Your task to perform on an android device: turn off airplane mode Image 0: 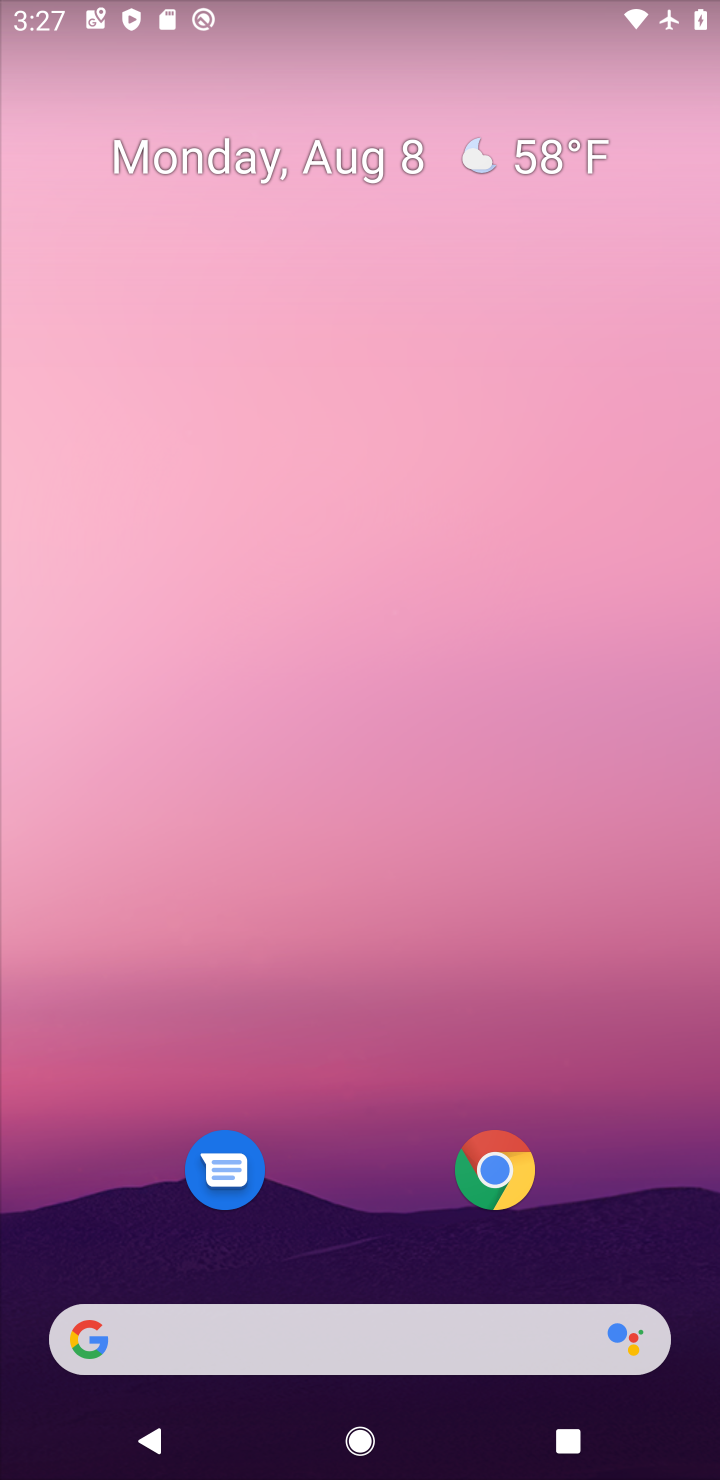
Step 0: drag from (407, 789) to (429, 615)
Your task to perform on an android device: turn off airplane mode Image 1: 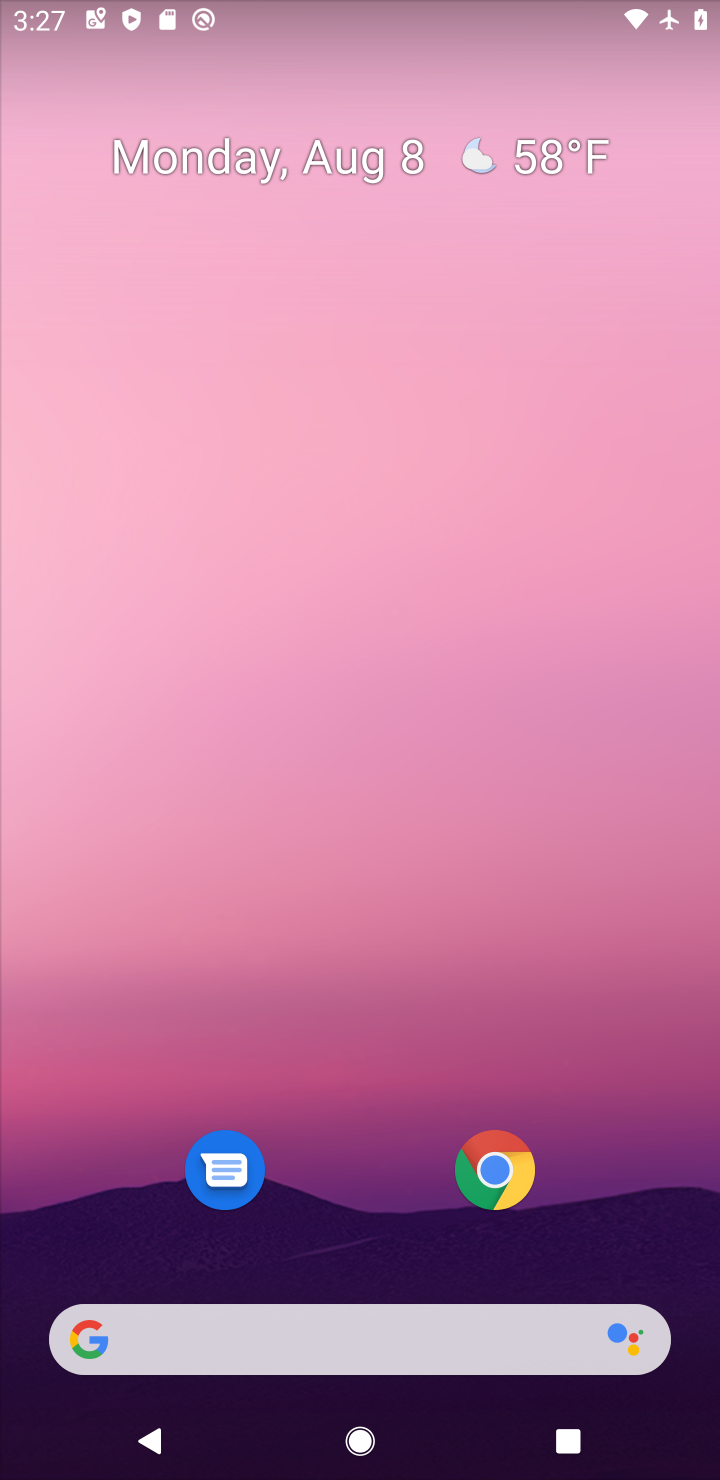
Step 1: drag from (318, 1155) to (407, 436)
Your task to perform on an android device: turn off airplane mode Image 2: 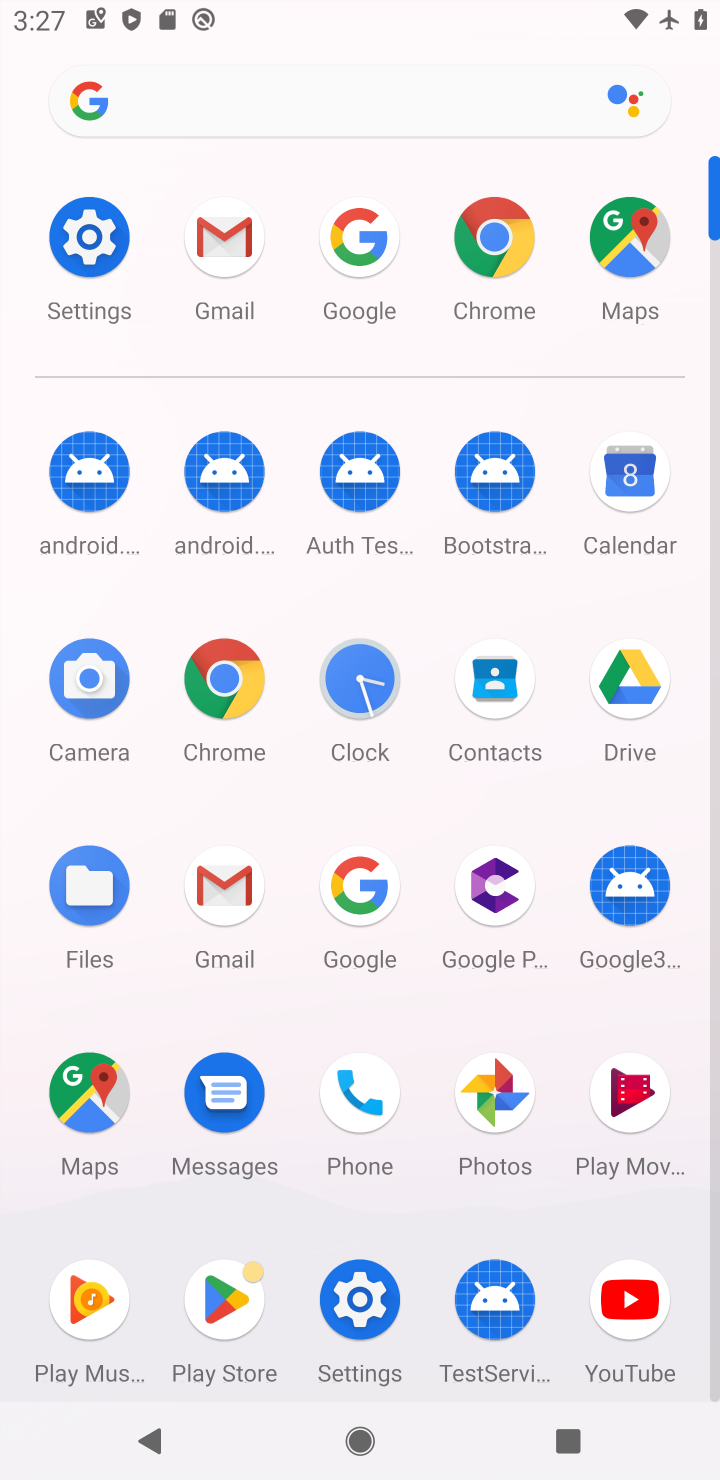
Step 2: click (102, 236)
Your task to perform on an android device: turn off airplane mode Image 3: 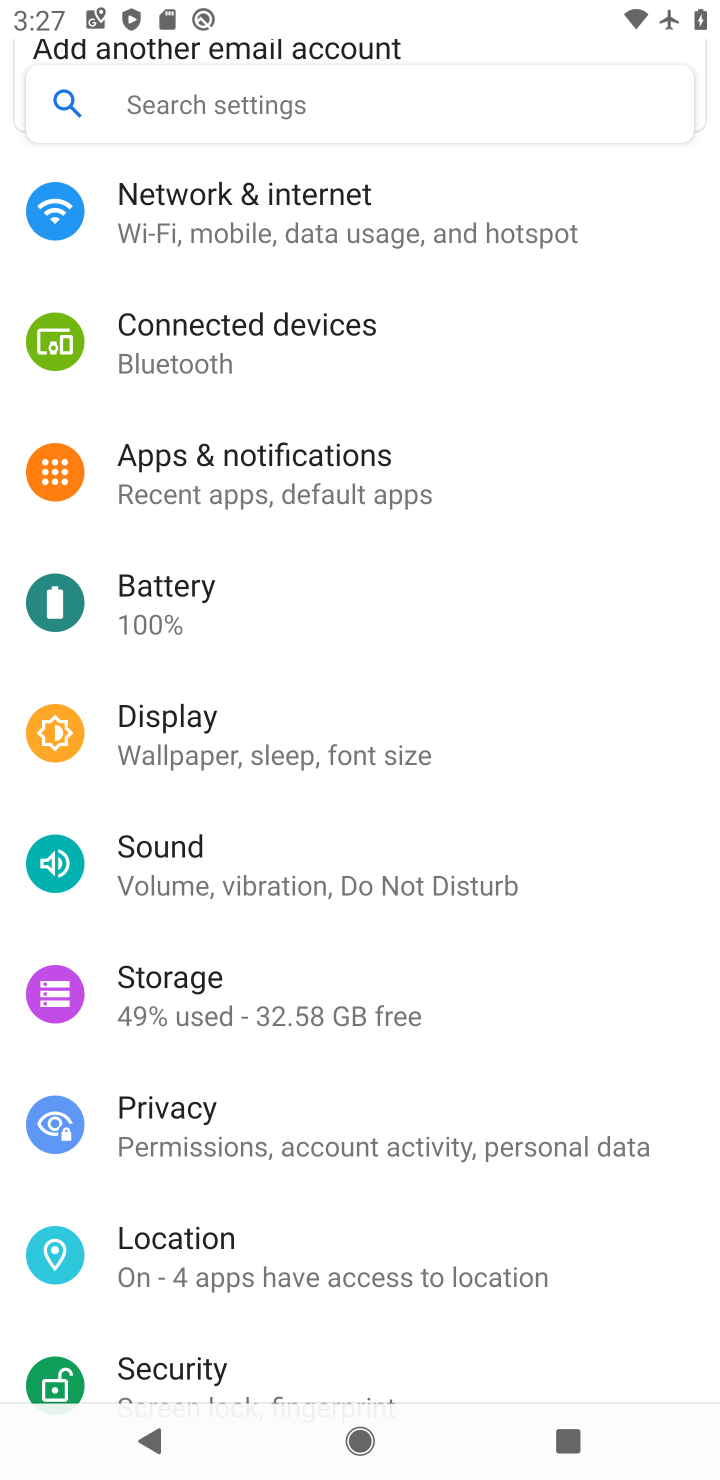
Step 3: drag from (286, 406) to (380, 1065)
Your task to perform on an android device: turn off airplane mode Image 4: 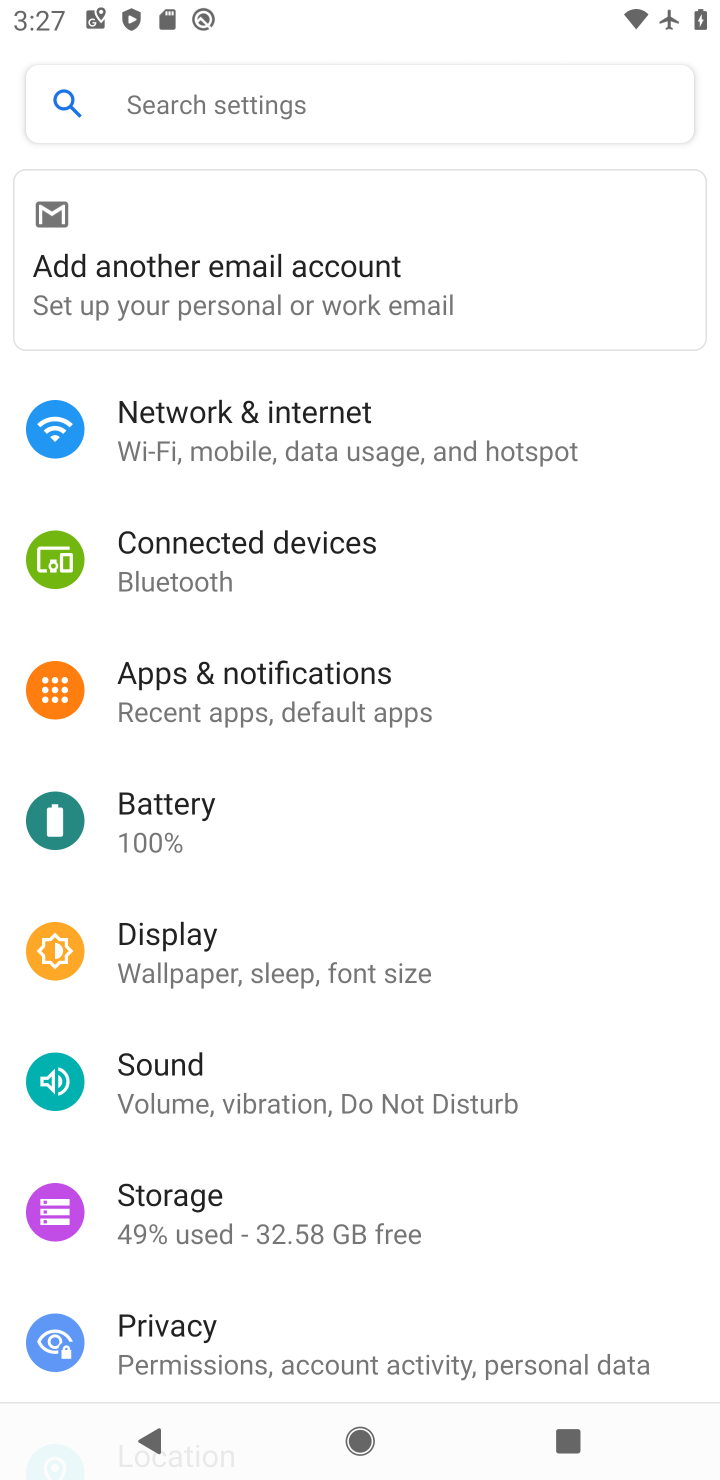
Step 4: click (302, 451)
Your task to perform on an android device: turn off airplane mode Image 5: 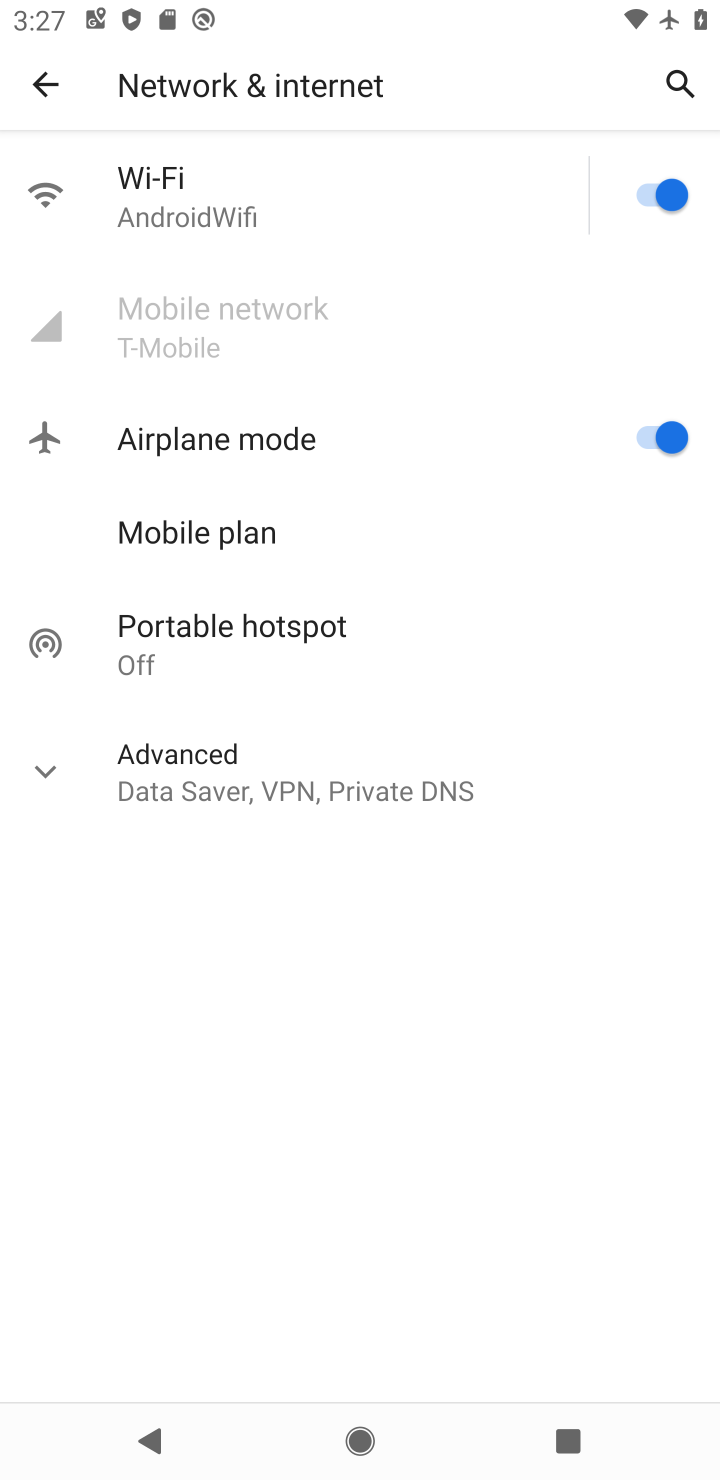
Step 5: click (653, 426)
Your task to perform on an android device: turn off airplane mode Image 6: 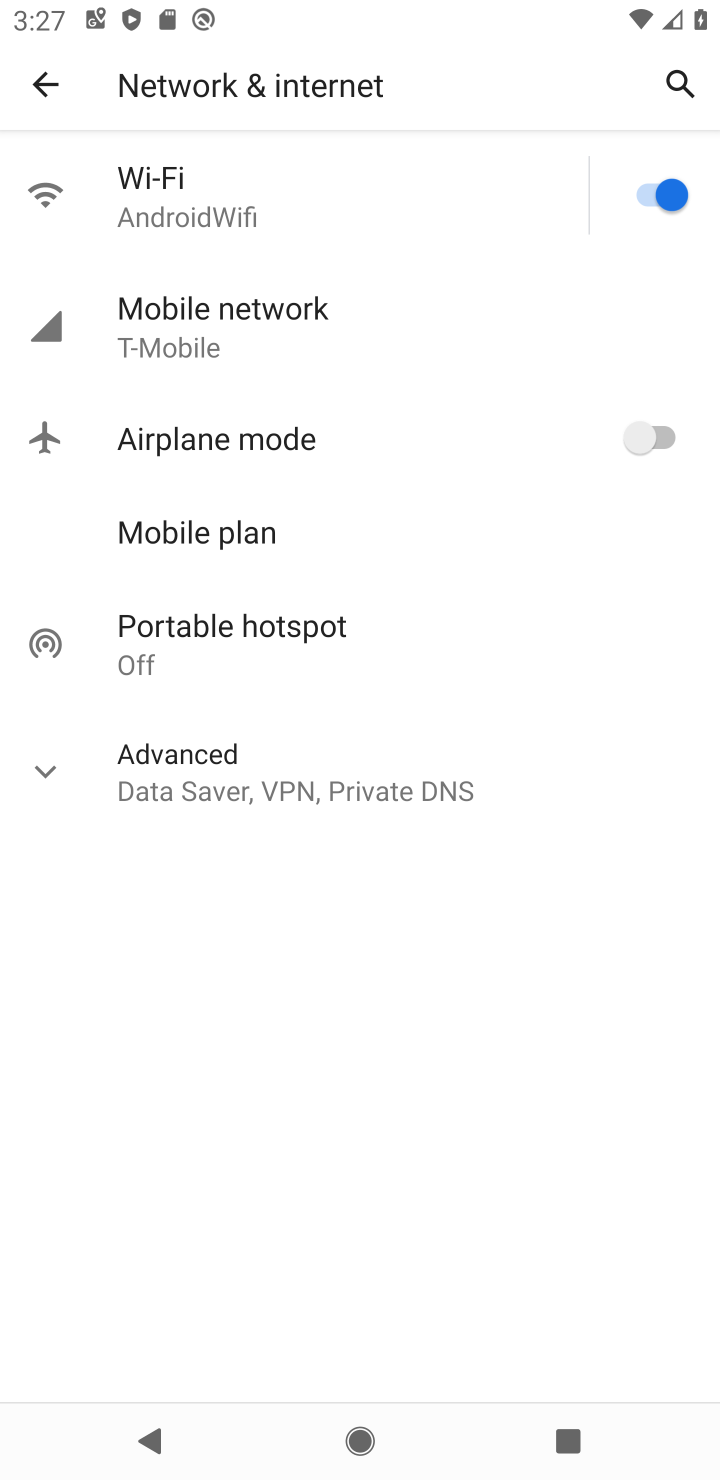
Step 6: task complete